Your task to perform on an android device: Open calendar and show me the fourth week of next month Image 0: 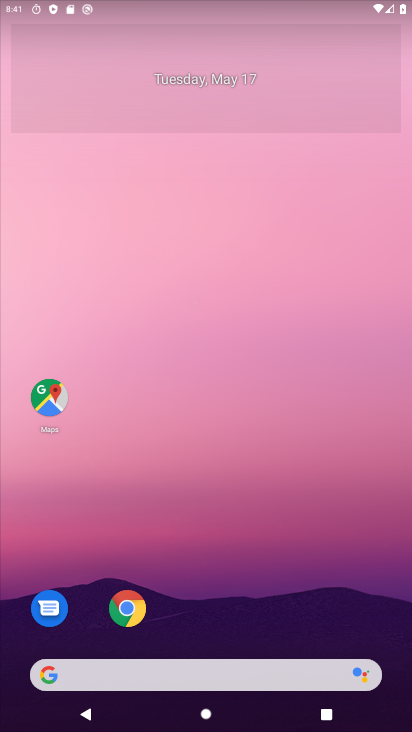
Step 0: drag from (277, 617) to (292, 227)
Your task to perform on an android device: Open calendar and show me the fourth week of next month Image 1: 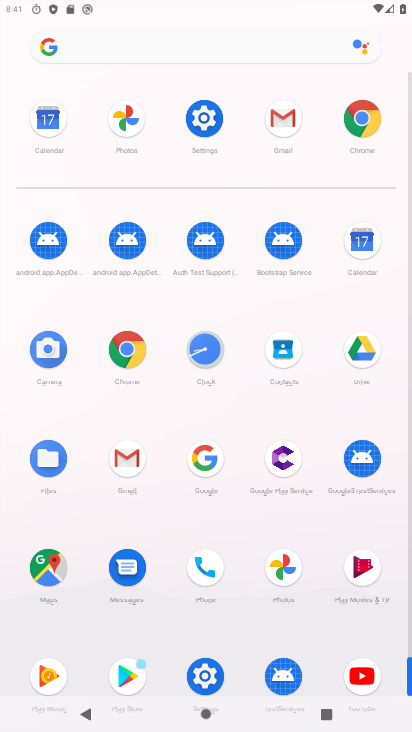
Step 1: click (375, 248)
Your task to perform on an android device: Open calendar and show me the fourth week of next month Image 2: 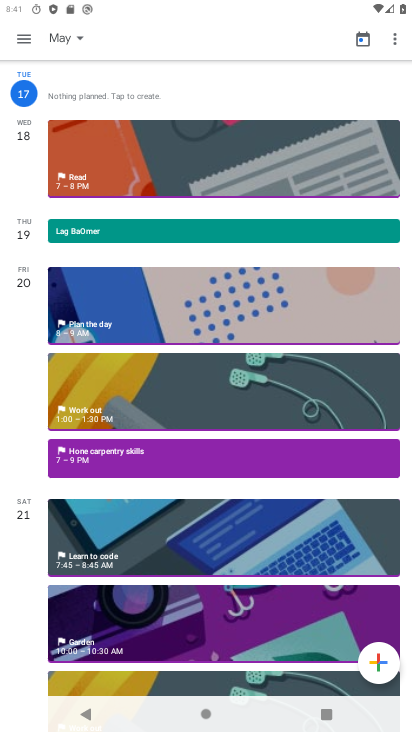
Step 2: drag from (287, 650) to (321, 239)
Your task to perform on an android device: Open calendar and show me the fourth week of next month Image 3: 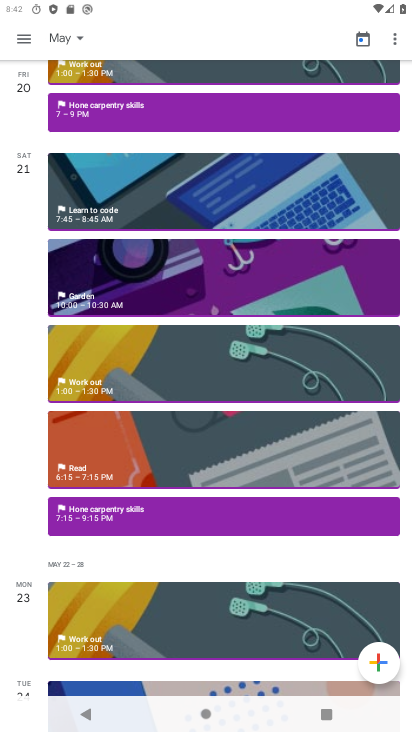
Step 3: click (59, 41)
Your task to perform on an android device: Open calendar and show me the fourth week of next month Image 4: 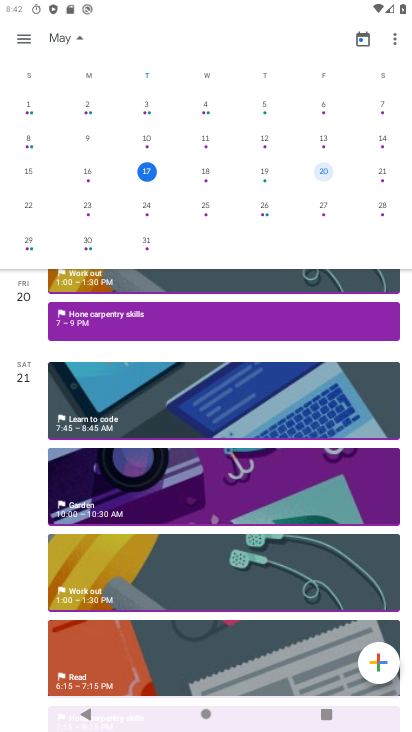
Step 4: drag from (335, 135) to (42, 135)
Your task to perform on an android device: Open calendar and show me the fourth week of next month Image 5: 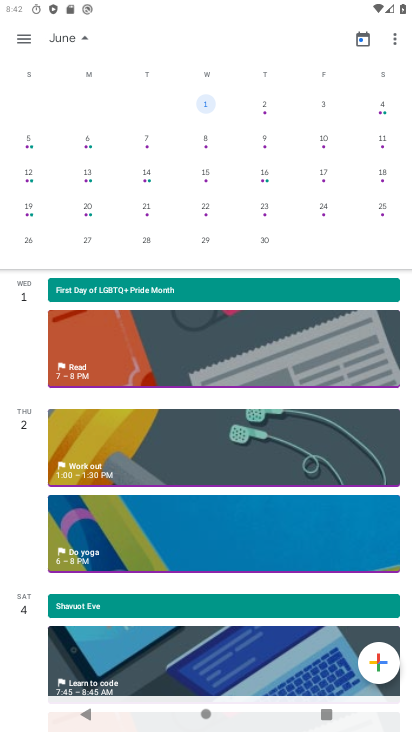
Step 5: click (25, 213)
Your task to perform on an android device: Open calendar and show me the fourth week of next month Image 6: 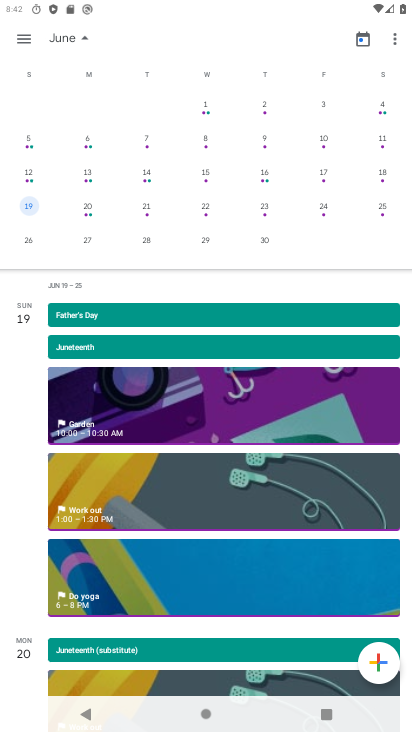
Step 6: task complete